Your task to perform on an android device: Go to Google Image 0: 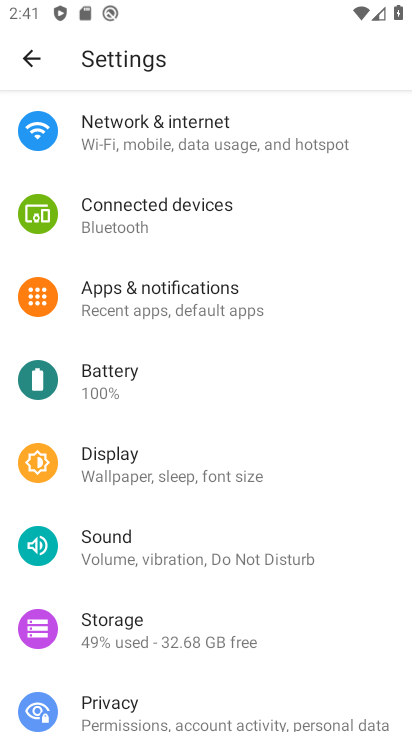
Step 0: press home button
Your task to perform on an android device: Go to Google Image 1: 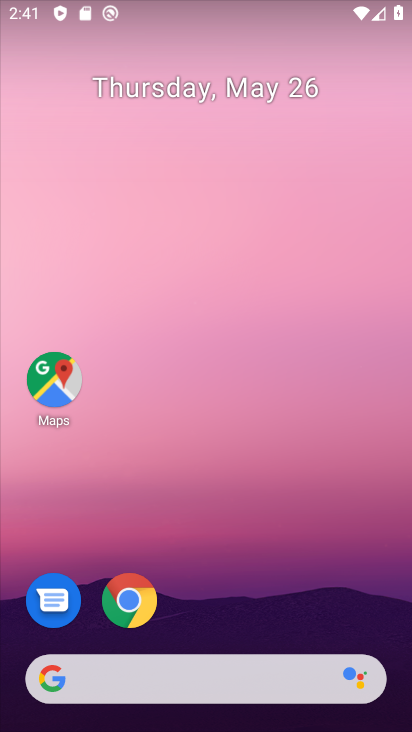
Step 1: drag from (306, 614) to (266, 178)
Your task to perform on an android device: Go to Google Image 2: 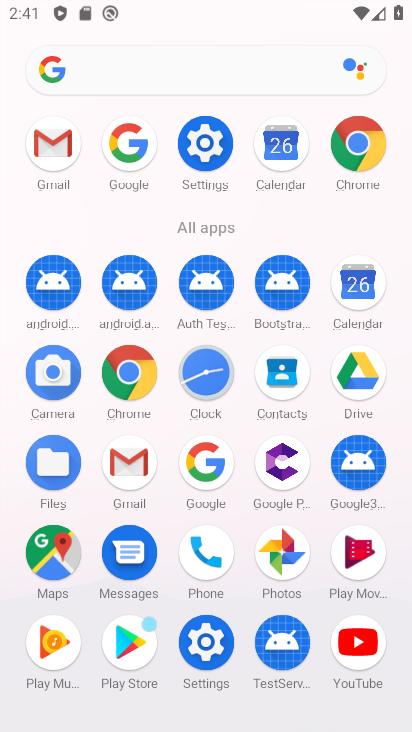
Step 2: click (204, 466)
Your task to perform on an android device: Go to Google Image 3: 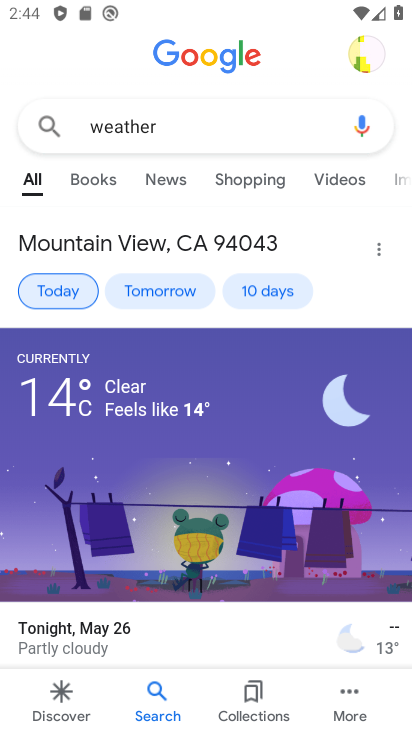
Step 3: task complete